Your task to perform on an android device: Open Reddit.com Image 0: 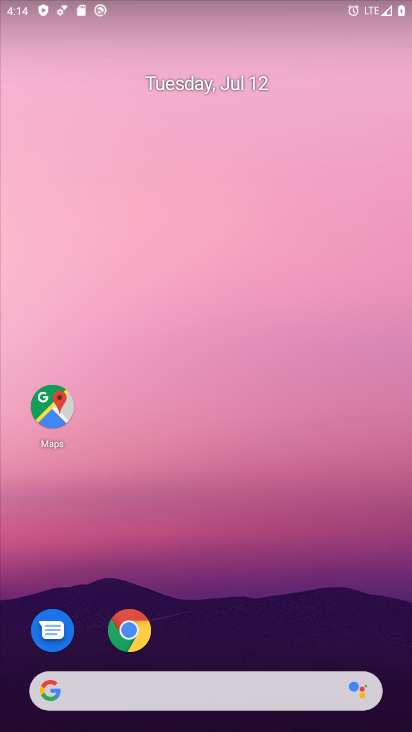
Step 0: click (266, 8)
Your task to perform on an android device: Open Reddit.com Image 1: 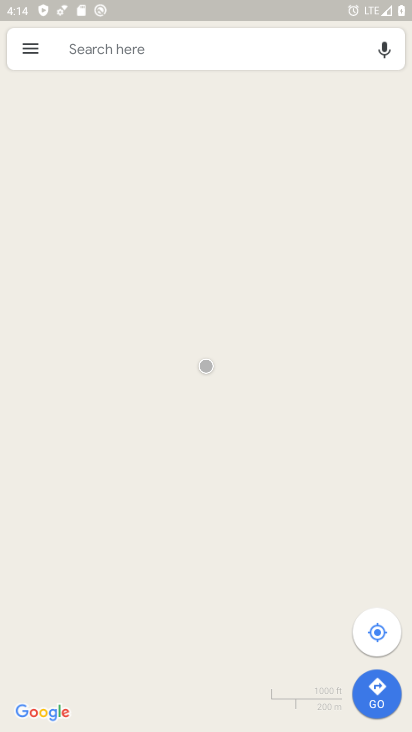
Step 1: press back button
Your task to perform on an android device: Open Reddit.com Image 2: 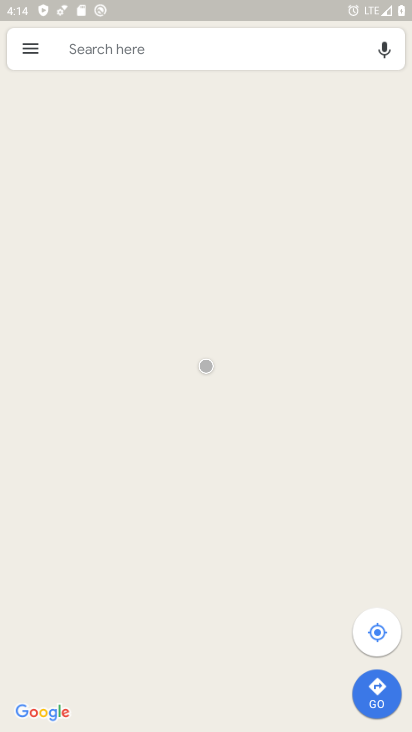
Step 2: press back button
Your task to perform on an android device: Open Reddit.com Image 3: 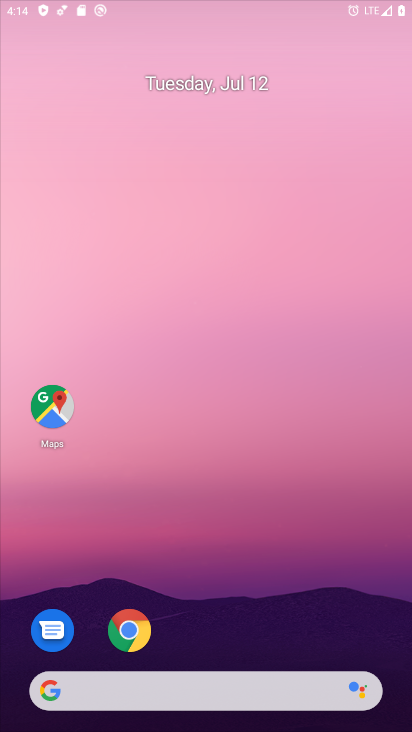
Step 3: press home button
Your task to perform on an android device: Open Reddit.com Image 4: 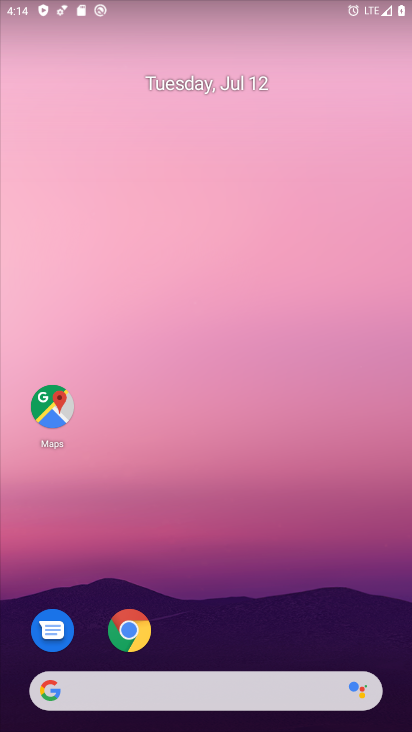
Step 4: drag from (247, 707) to (83, 156)
Your task to perform on an android device: Open Reddit.com Image 5: 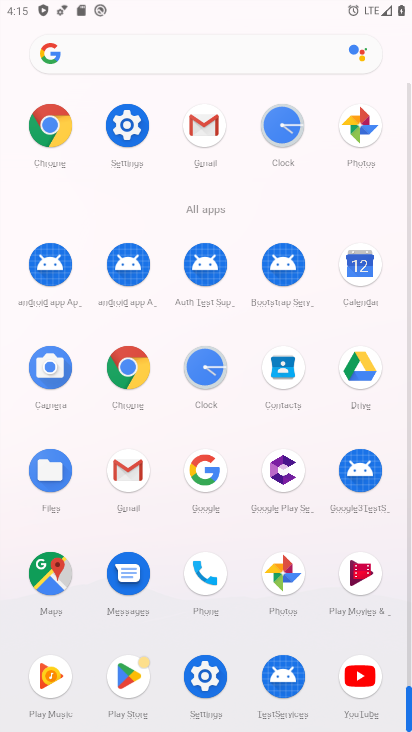
Step 5: click (53, 134)
Your task to perform on an android device: Open Reddit.com Image 6: 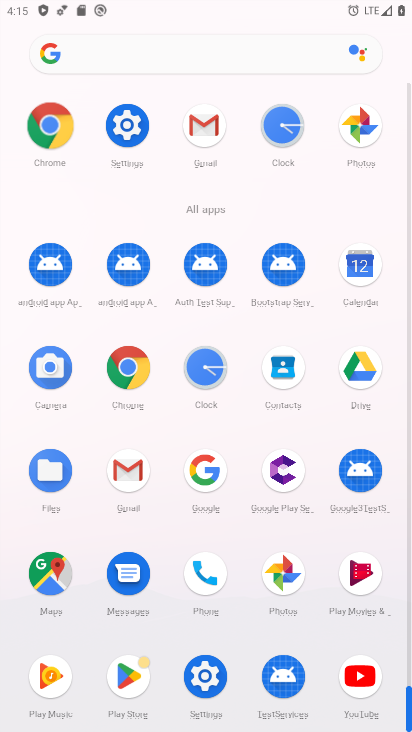
Step 6: click (61, 147)
Your task to perform on an android device: Open Reddit.com Image 7: 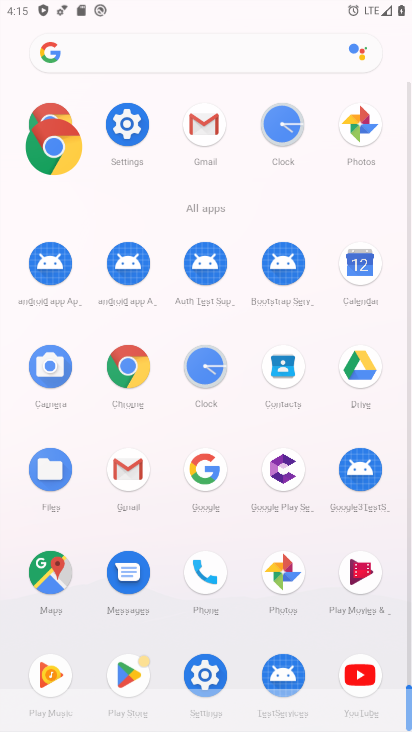
Step 7: click (48, 115)
Your task to perform on an android device: Open Reddit.com Image 8: 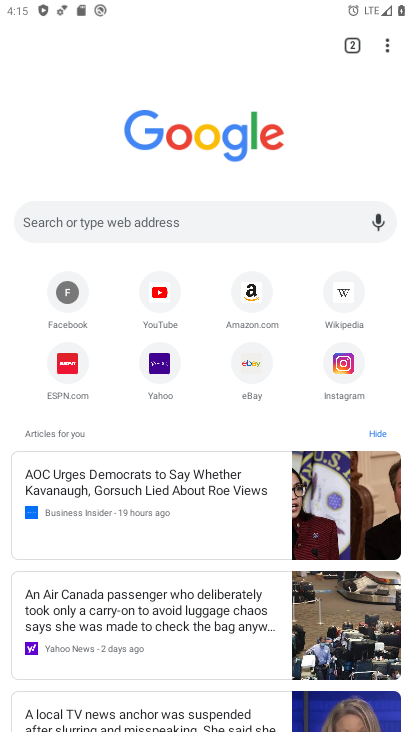
Step 8: click (95, 224)
Your task to perform on an android device: Open Reddit.com Image 9: 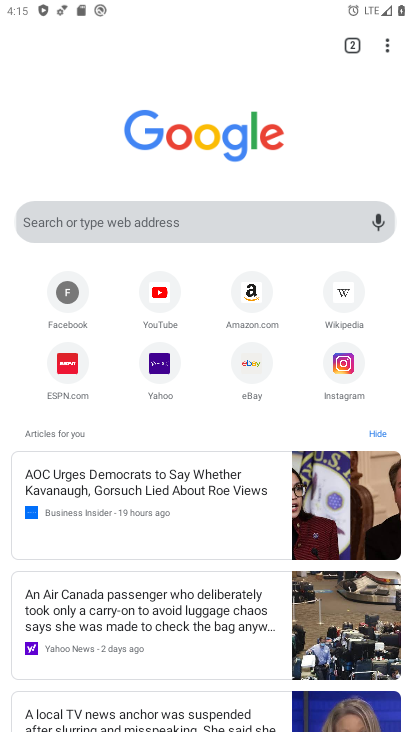
Step 9: click (98, 223)
Your task to perform on an android device: Open Reddit.com Image 10: 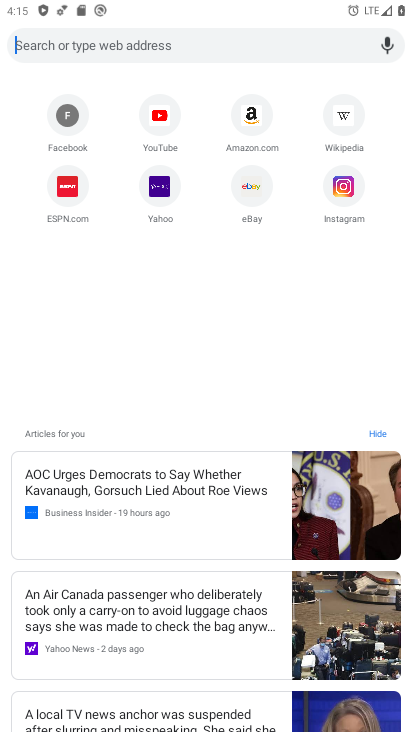
Step 10: click (100, 223)
Your task to perform on an android device: Open Reddit.com Image 11: 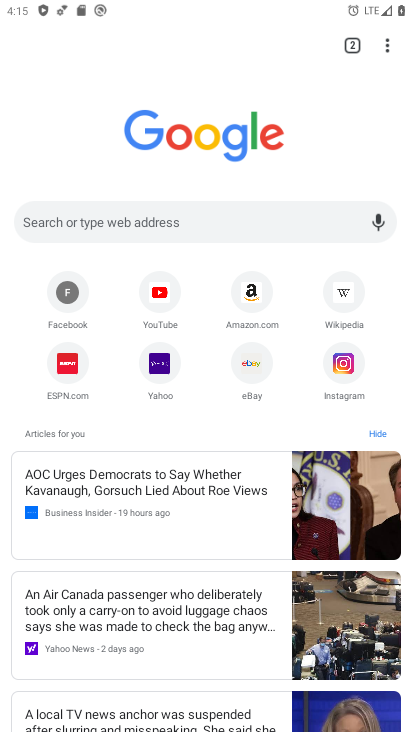
Step 11: click (54, 214)
Your task to perform on an android device: Open Reddit.com Image 12: 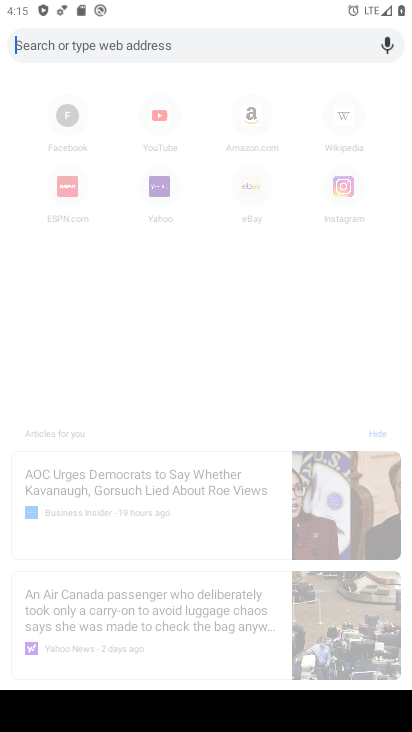
Step 12: type "reddit.com"
Your task to perform on an android device: Open Reddit.com Image 13: 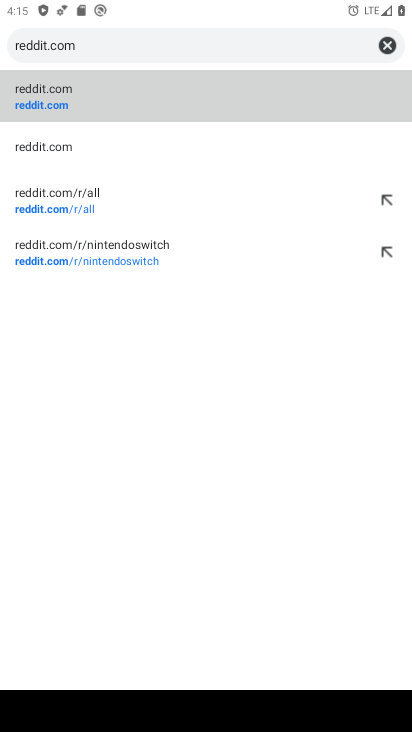
Step 13: click (42, 110)
Your task to perform on an android device: Open Reddit.com Image 14: 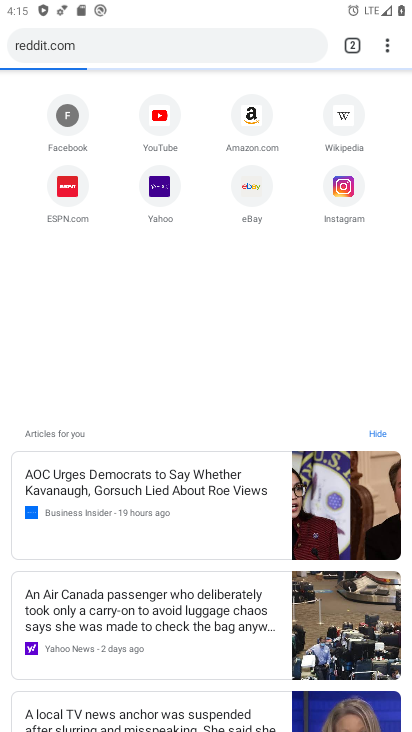
Step 14: click (42, 107)
Your task to perform on an android device: Open Reddit.com Image 15: 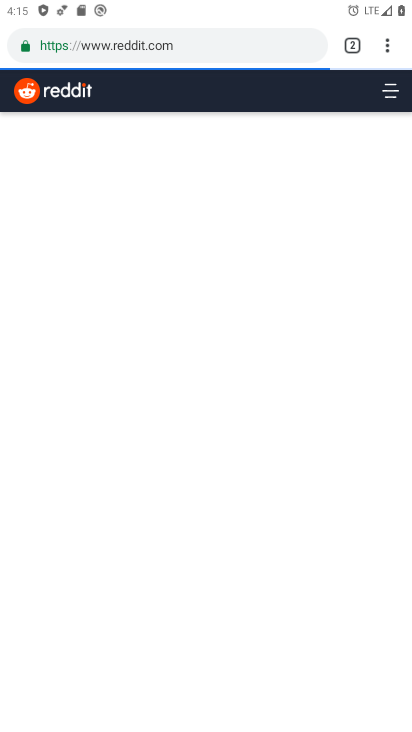
Step 15: task complete